Your task to perform on an android device: Do I have any events today? Image 0: 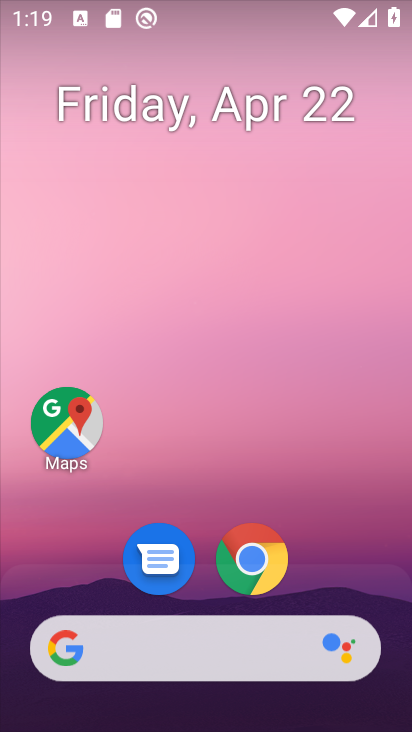
Step 0: drag from (213, 203) to (219, 137)
Your task to perform on an android device: Do I have any events today? Image 1: 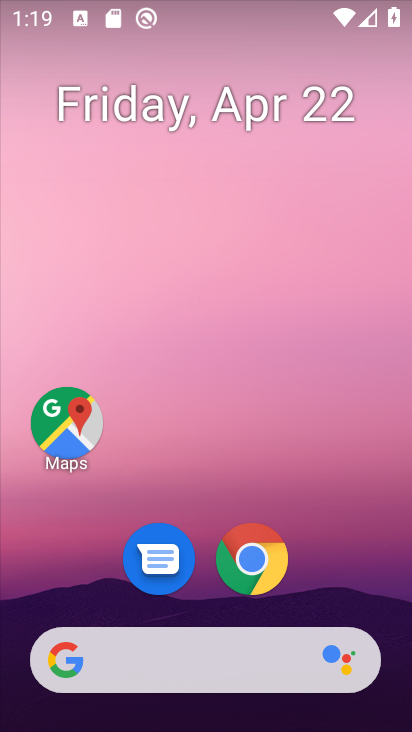
Step 1: drag from (162, 517) to (184, 190)
Your task to perform on an android device: Do I have any events today? Image 2: 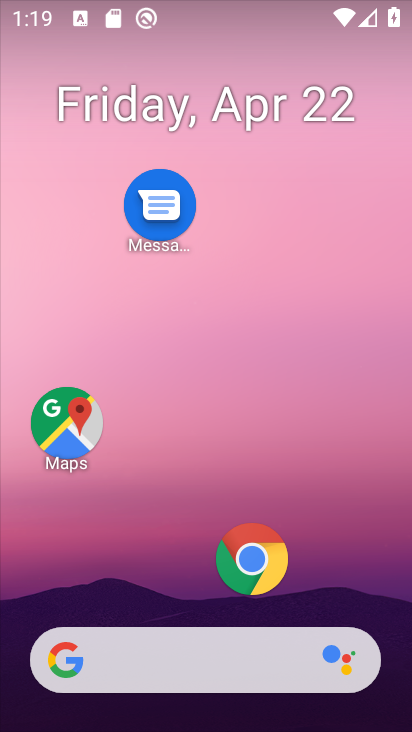
Step 2: drag from (196, 556) to (245, 141)
Your task to perform on an android device: Do I have any events today? Image 3: 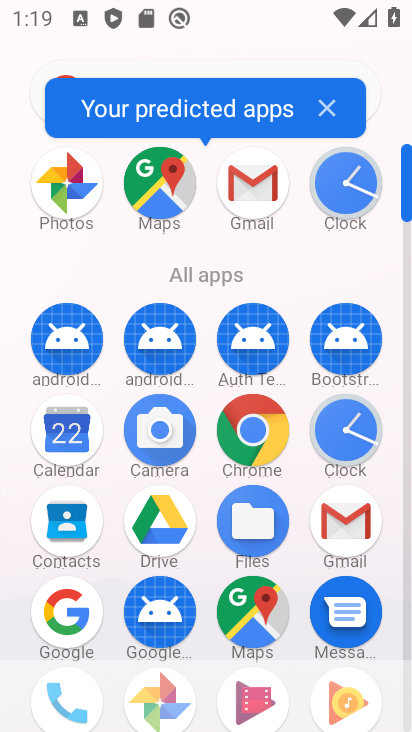
Step 3: click (63, 435)
Your task to perform on an android device: Do I have any events today? Image 4: 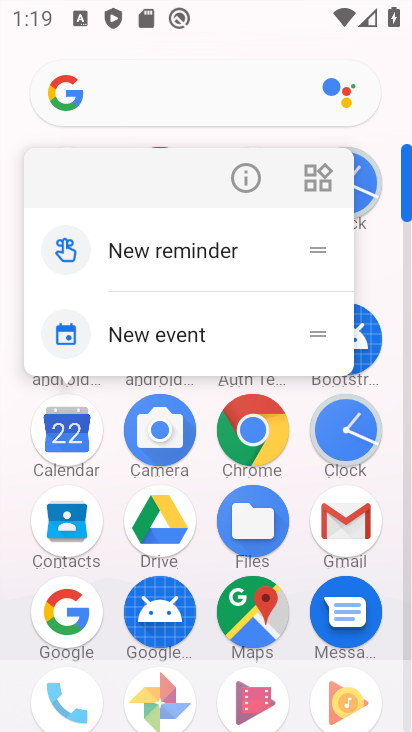
Step 4: click (70, 450)
Your task to perform on an android device: Do I have any events today? Image 5: 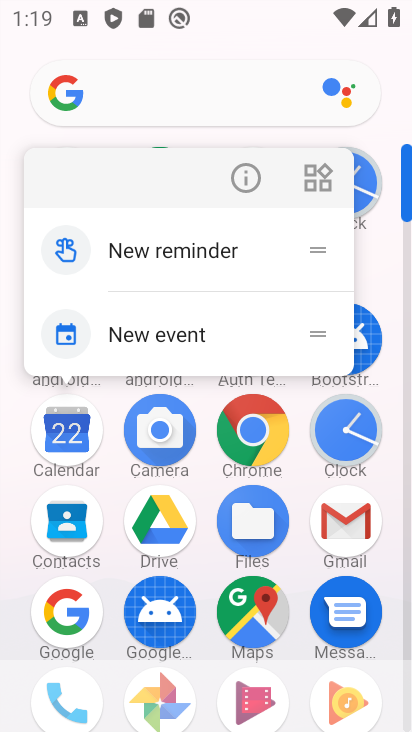
Step 5: click (70, 450)
Your task to perform on an android device: Do I have any events today? Image 6: 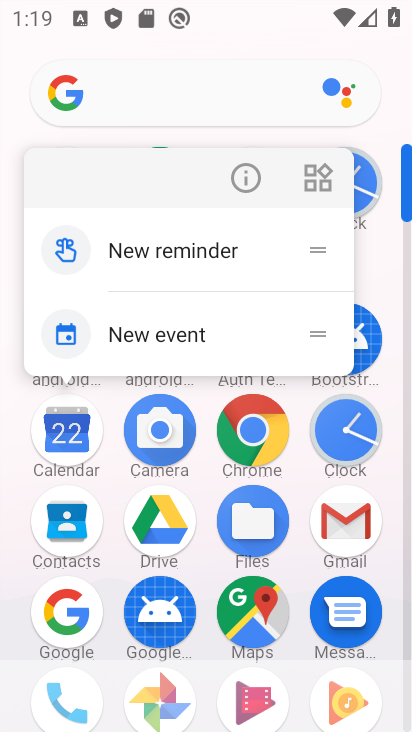
Step 6: click (70, 450)
Your task to perform on an android device: Do I have any events today? Image 7: 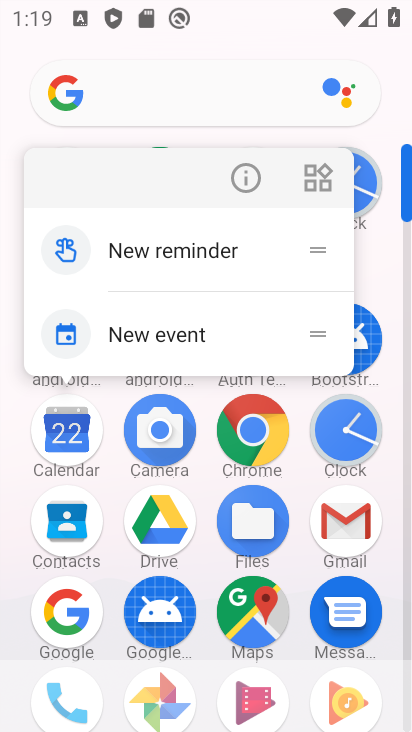
Step 7: click (56, 438)
Your task to perform on an android device: Do I have any events today? Image 8: 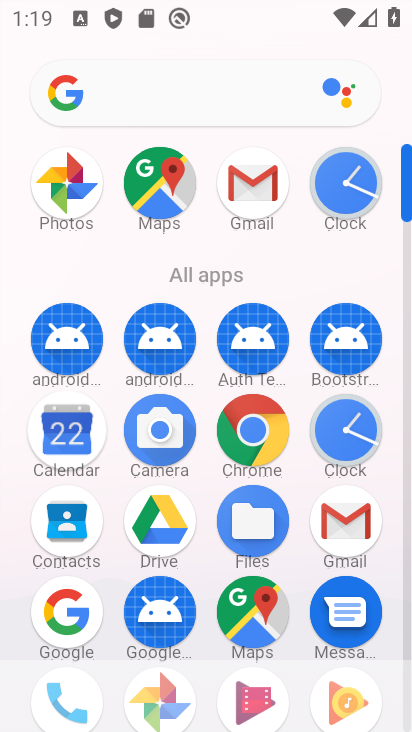
Step 8: click (56, 438)
Your task to perform on an android device: Do I have any events today? Image 9: 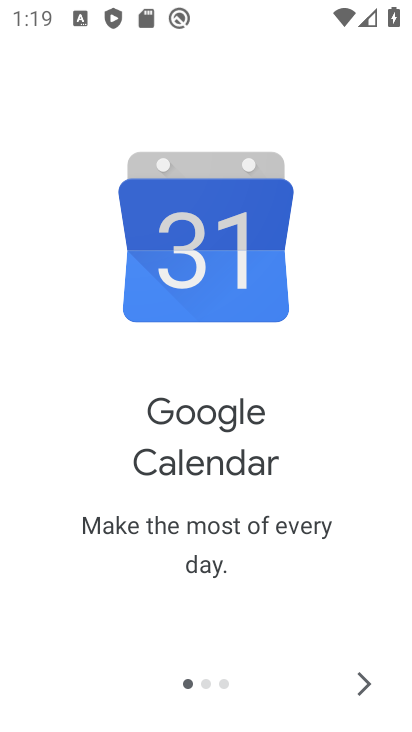
Step 9: click (368, 687)
Your task to perform on an android device: Do I have any events today? Image 10: 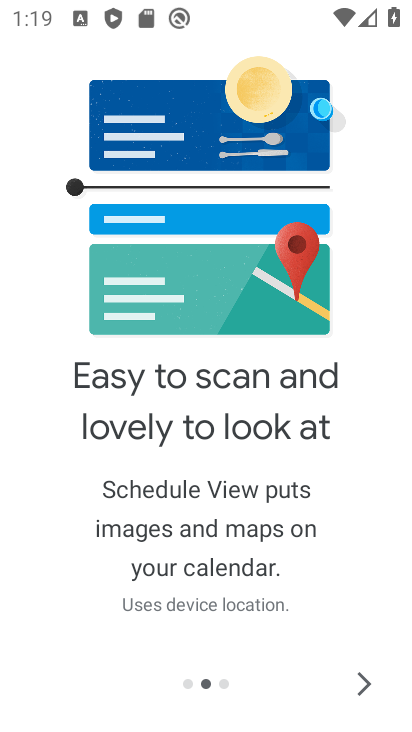
Step 10: click (368, 687)
Your task to perform on an android device: Do I have any events today? Image 11: 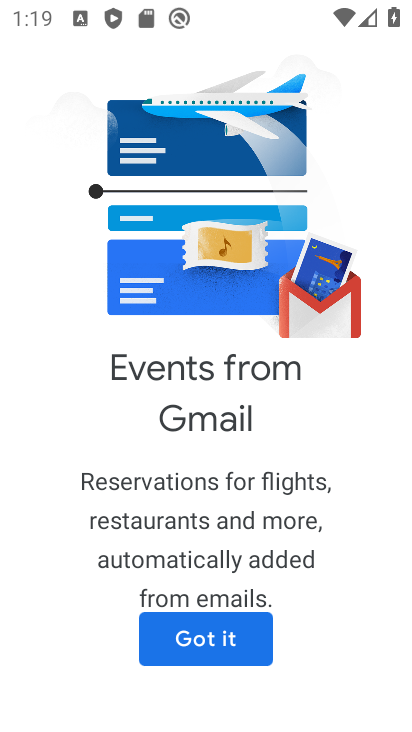
Step 11: click (234, 640)
Your task to perform on an android device: Do I have any events today? Image 12: 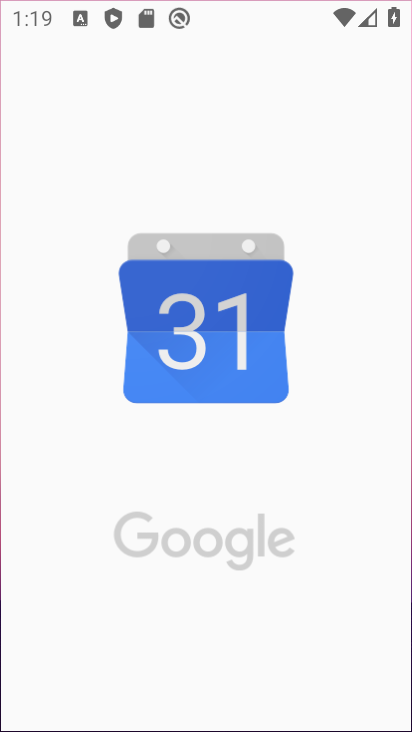
Step 12: click (234, 640)
Your task to perform on an android device: Do I have any events today? Image 13: 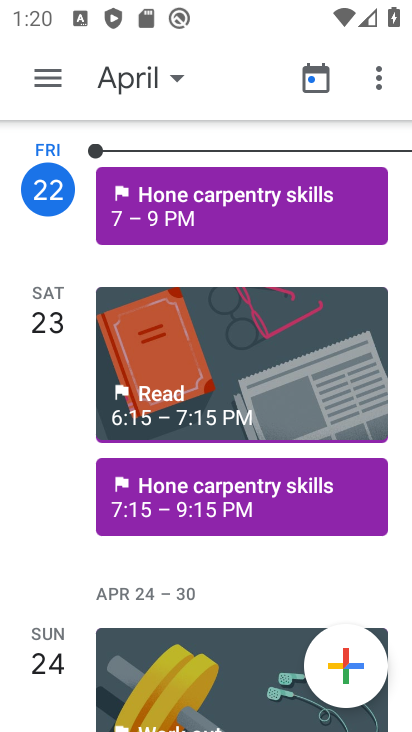
Step 13: click (227, 209)
Your task to perform on an android device: Do I have any events today? Image 14: 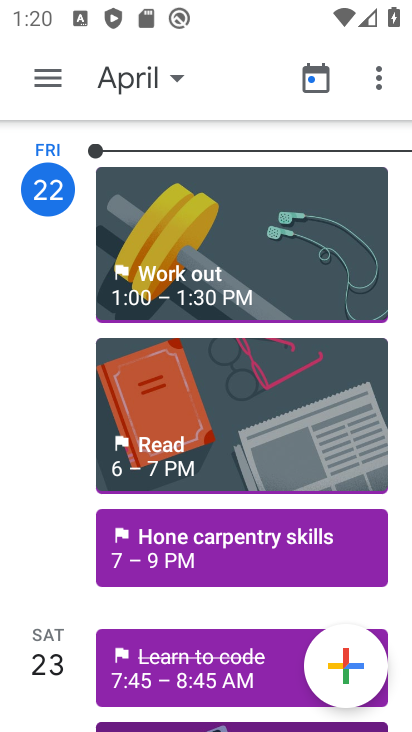
Step 14: task complete